Your task to perform on an android device: check out phone information Image 0: 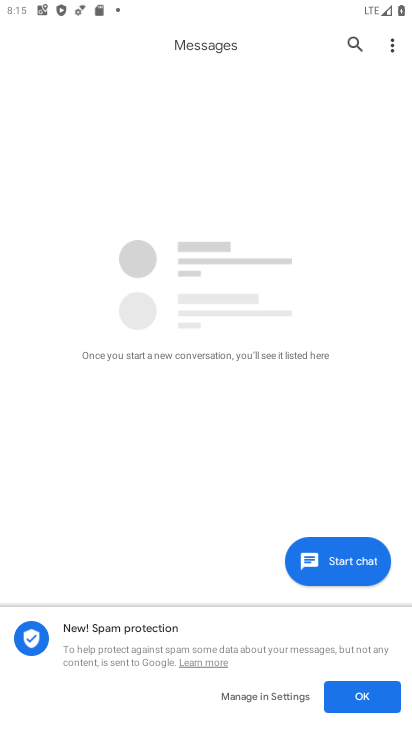
Step 0: press home button
Your task to perform on an android device: check out phone information Image 1: 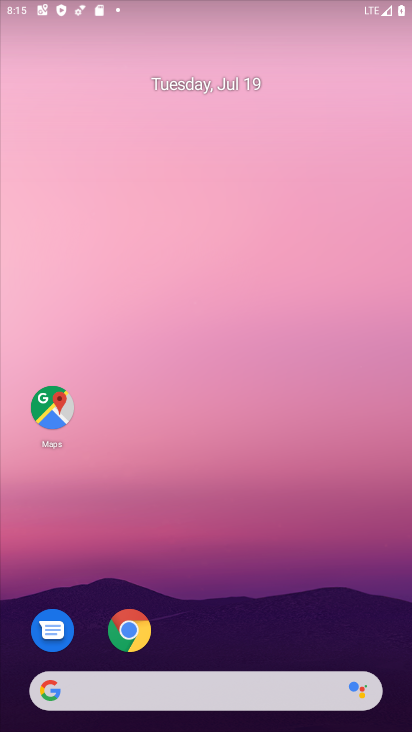
Step 1: drag from (185, 671) to (271, 7)
Your task to perform on an android device: check out phone information Image 2: 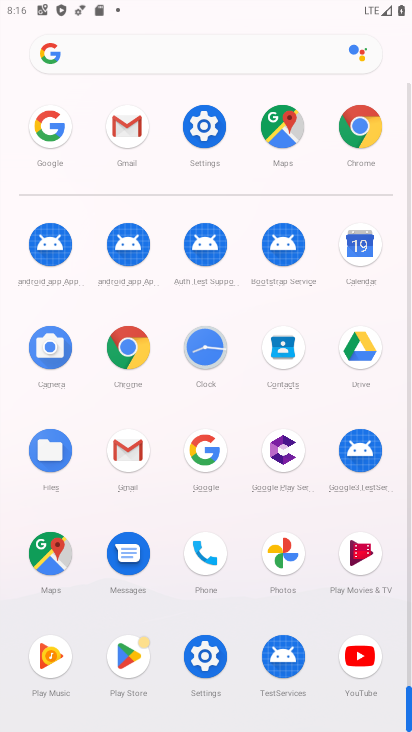
Step 2: click (202, 124)
Your task to perform on an android device: check out phone information Image 3: 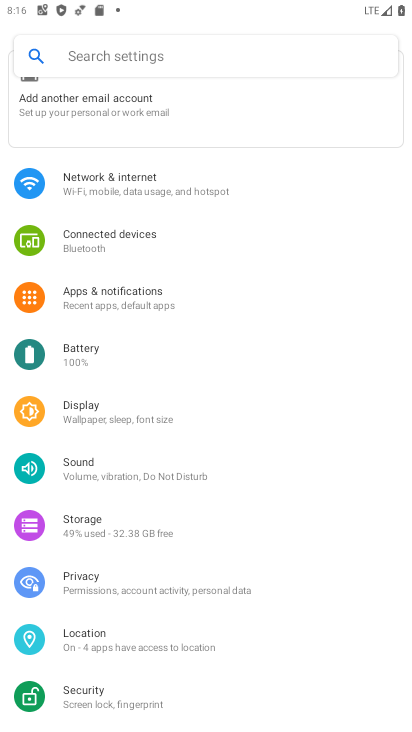
Step 3: drag from (229, 505) to (295, 172)
Your task to perform on an android device: check out phone information Image 4: 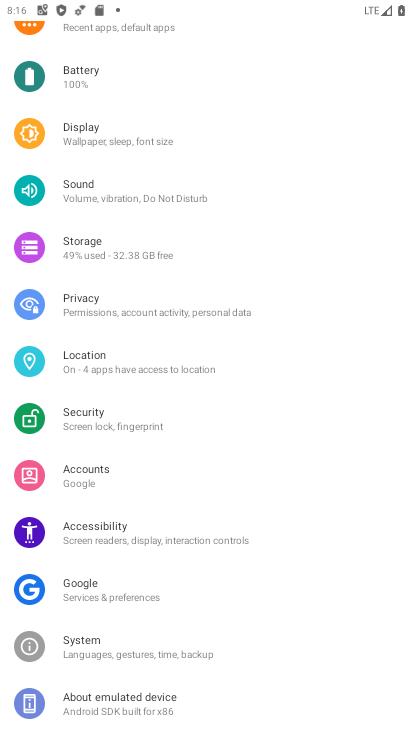
Step 4: drag from (151, 684) to (200, 276)
Your task to perform on an android device: check out phone information Image 5: 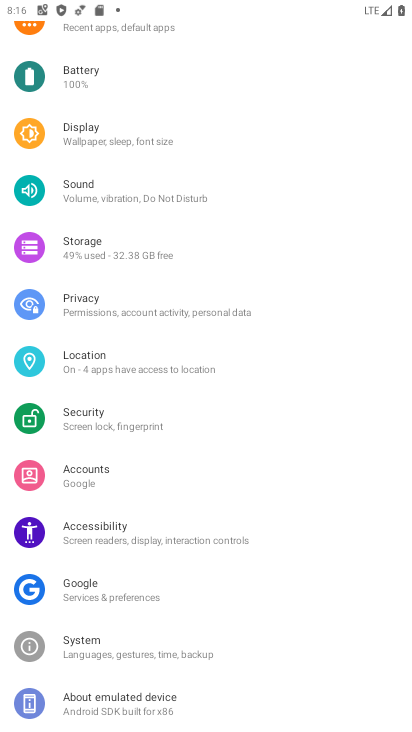
Step 5: click (116, 706)
Your task to perform on an android device: check out phone information Image 6: 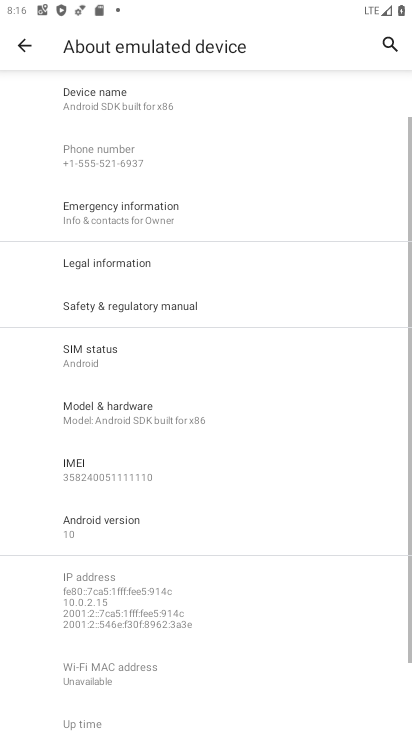
Step 6: task complete